Your task to perform on an android device: What's on my calendar today? Image 0: 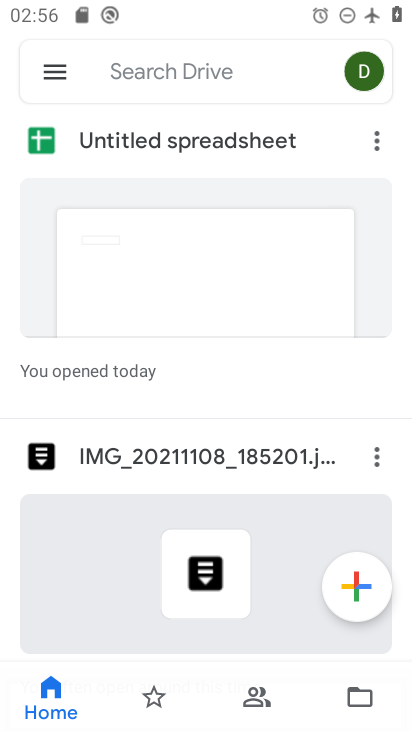
Step 0: press home button
Your task to perform on an android device: What's on my calendar today? Image 1: 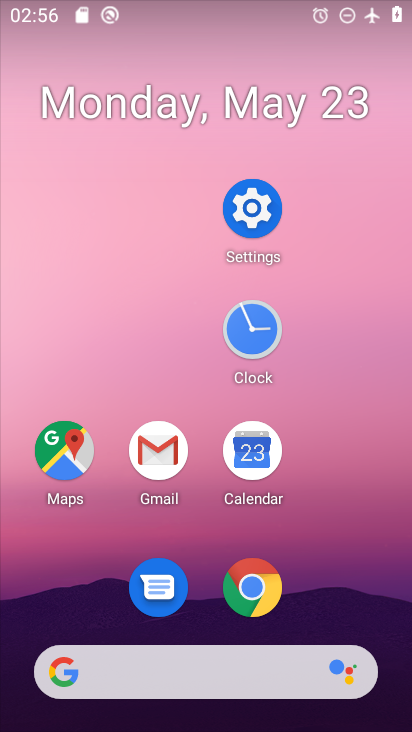
Step 1: click (271, 473)
Your task to perform on an android device: What's on my calendar today? Image 2: 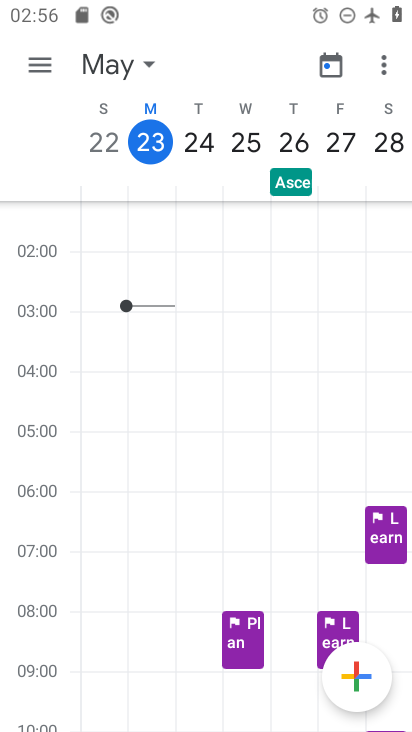
Step 2: task complete